Your task to perform on an android device: Open Google Maps and go to "Timeline" Image 0: 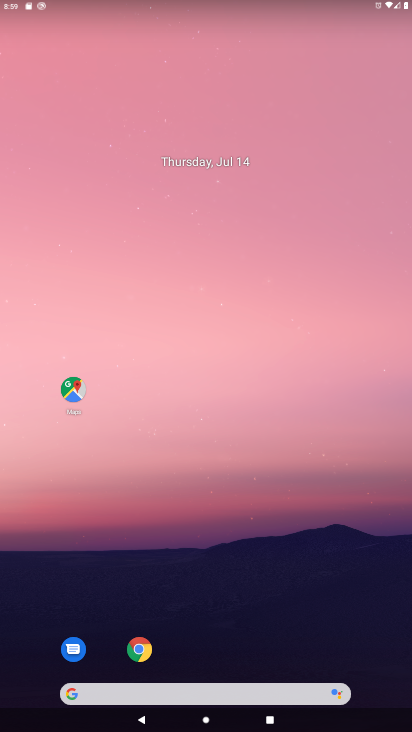
Step 0: click (79, 390)
Your task to perform on an android device: Open Google Maps and go to "Timeline" Image 1: 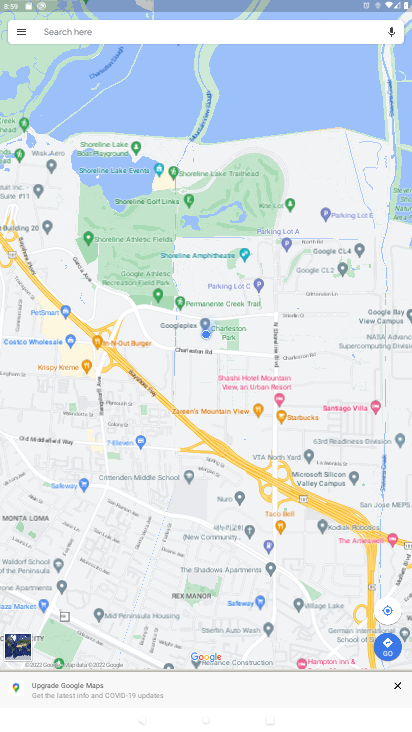
Step 1: click (19, 32)
Your task to perform on an android device: Open Google Maps and go to "Timeline" Image 2: 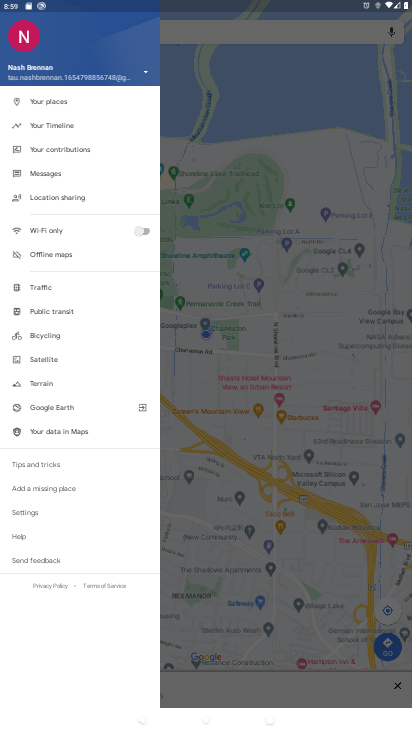
Step 2: click (48, 128)
Your task to perform on an android device: Open Google Maps and go to "Timeline" Image 3: 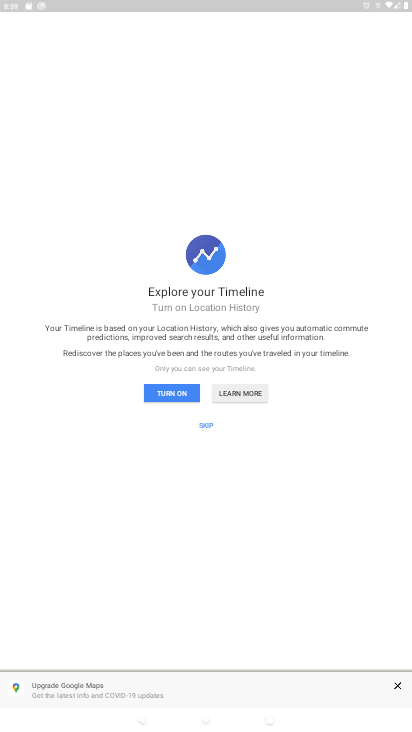
Step 3: click (210, 426)
Your task to perform on an android device: Open Google Maps and go to "Timeline" Image 4: 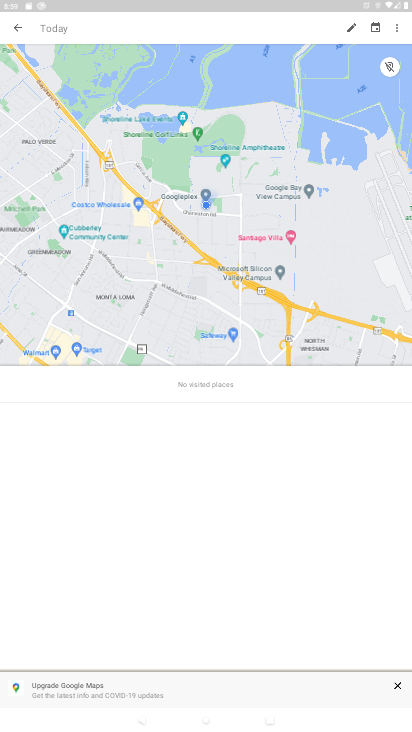
Step 4: click (396, 682)
Your task to perform on an android device: Open Google Maps and go to "Timeline" Image 5: 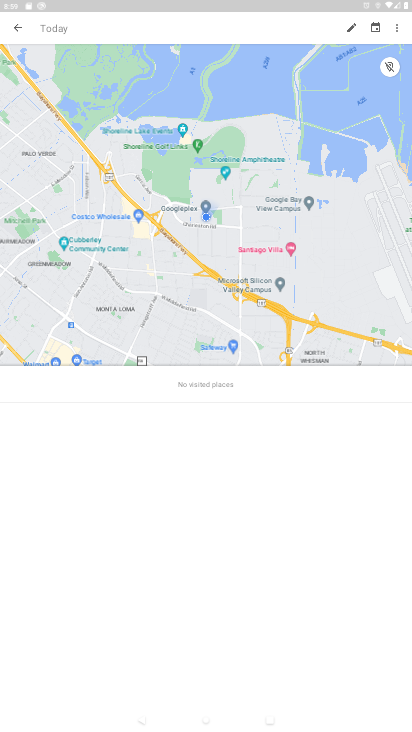
Step 5: task complete